Your task to perform on an android device: toggle wifi Image 0: 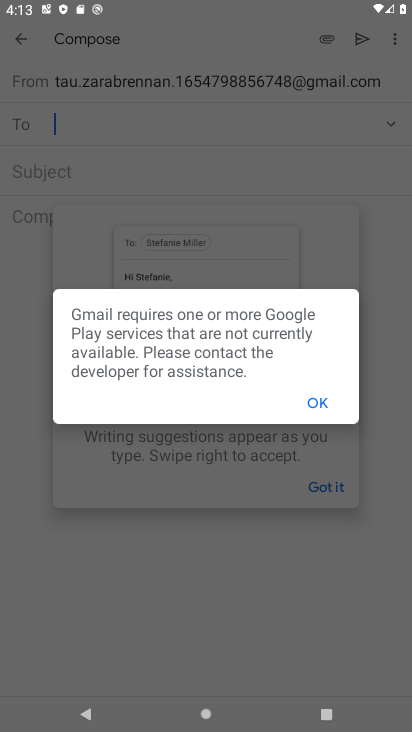
Step 0: press home button
Your task to perform on an android device: toggle wifi Image 1: 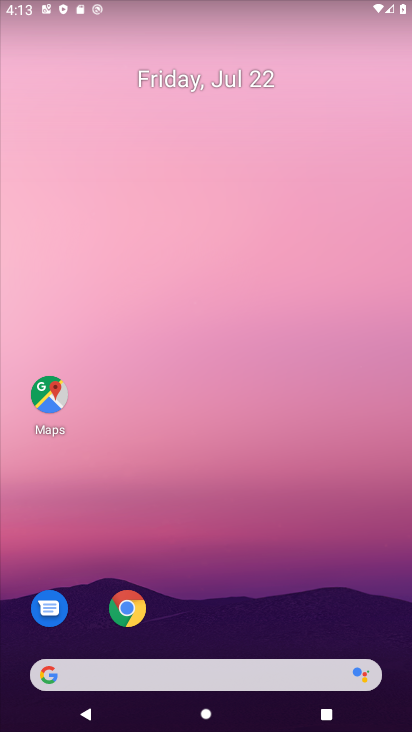
Step 1: drag from (235, 707) to (217, 276)
Your task to perform on an android device: toggle wifi Image 2: 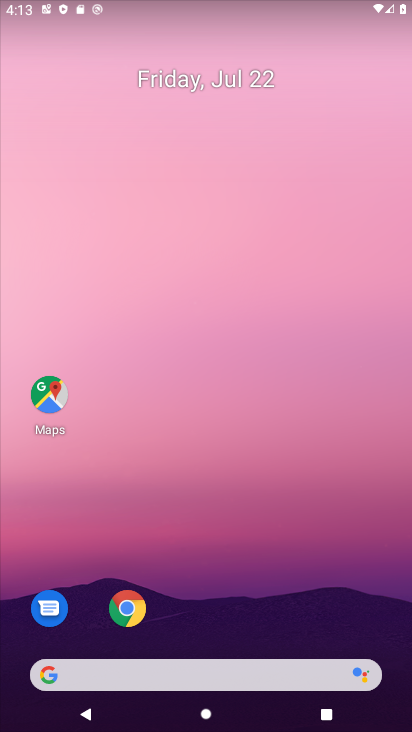
Step 2: drag from (224, 724) to (227, 232)
Your task to perform on an android device: toggle wifi Image 3: 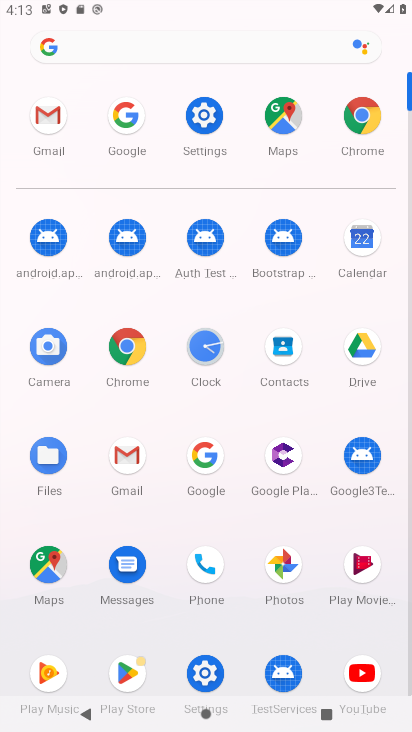
Step 3: click (205, 113)
Your task to perform on an android device: toggle wifi Image 4: 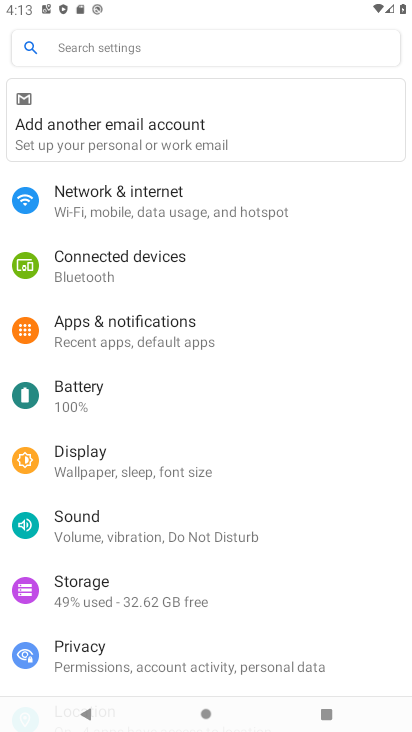
Step 4: click (135, 194)
Your task to perform on an android device: toggle wifi Image 5: 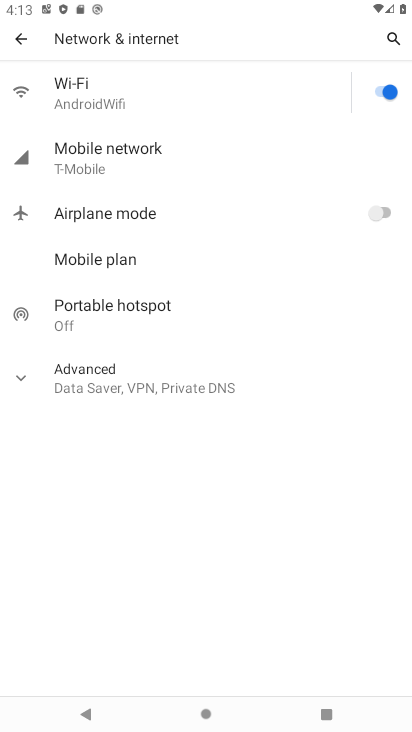
Step 5: click (379, 88)
Your task to perform on an android device: toggle wifi Image 6: 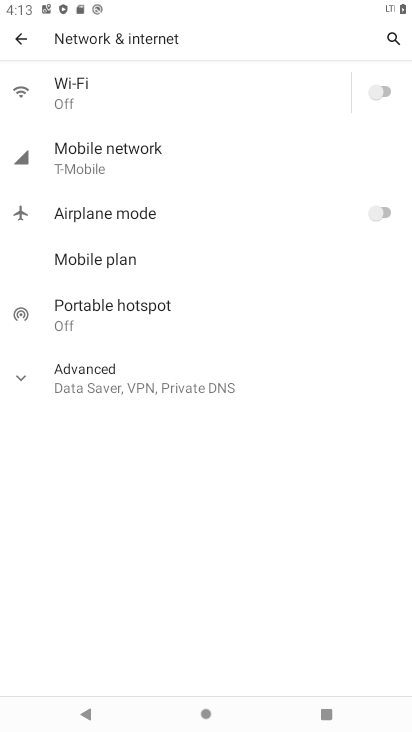
Step 6: task complete